Your task to perform on an android device: Add usb-c to usb-b to the cart on ebay.com Image 0: 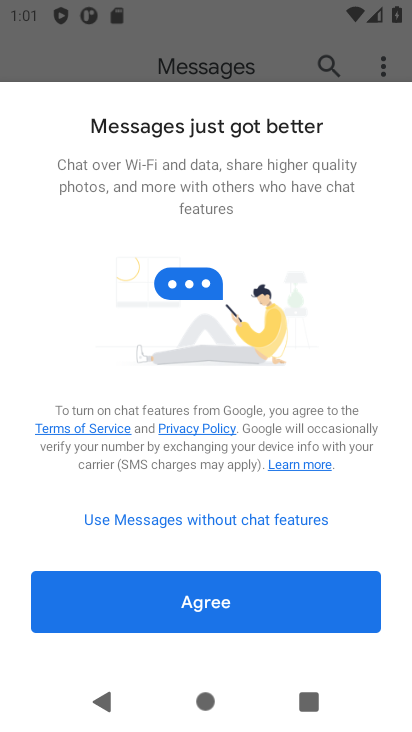
Step 0: press home button
Your task to perform on an android device: Add usb-c to usb-b to the cart on ebay.com Image 1: 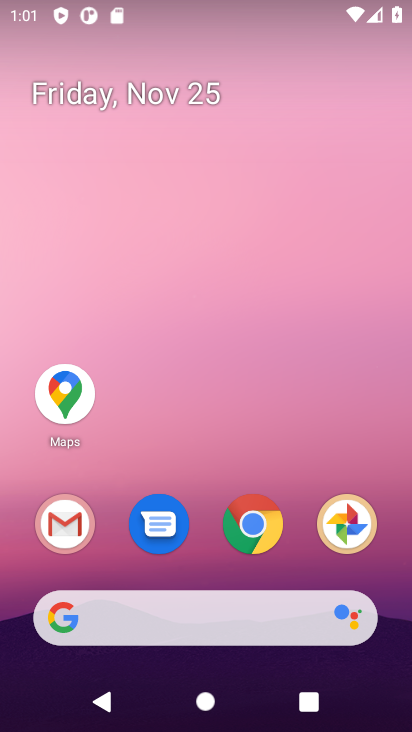
Step 1: click (249, 530)
Your task to perform on an android device: Add usb-c to usb-b to the cart on ebay.com Image 2: 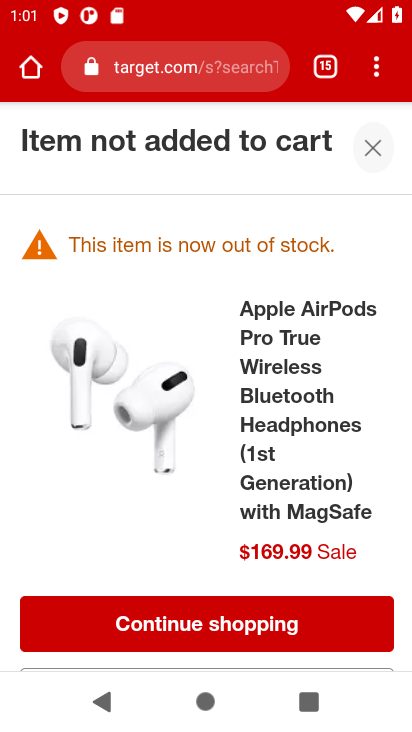
Step 2: click (141, 73)
Your task to perform on an android device: Add usb-c to usb-b to the cart on ebay.com Image 3: 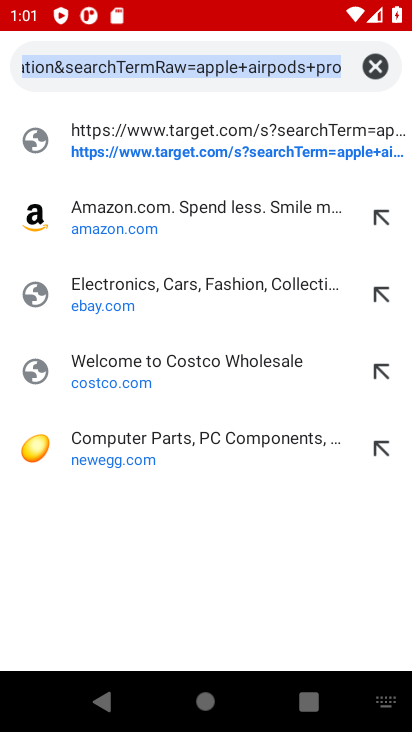
Step 3: click (94, 291)
Your task to perform on an android device: Add usb-c to usb-b to the cart on ebay.com Image 4: 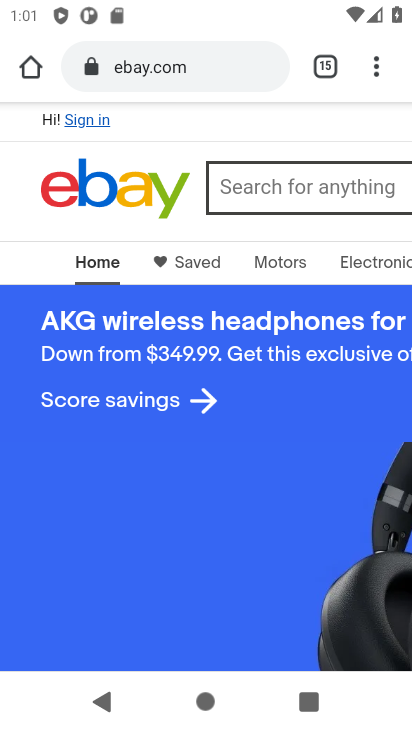
Step 4: click (268, 199)
Your task to perform on an android device: Add usb-c to usb-b to the cart on ebay.com Image 5: 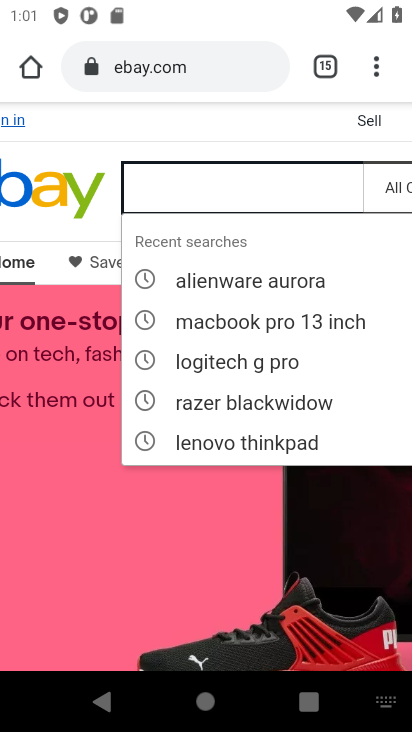
Step 5: type "usb-c to usb-b"
Your task to perform on an android device: Add usb-c to usb-b to the cart on ebay.com Image 6: 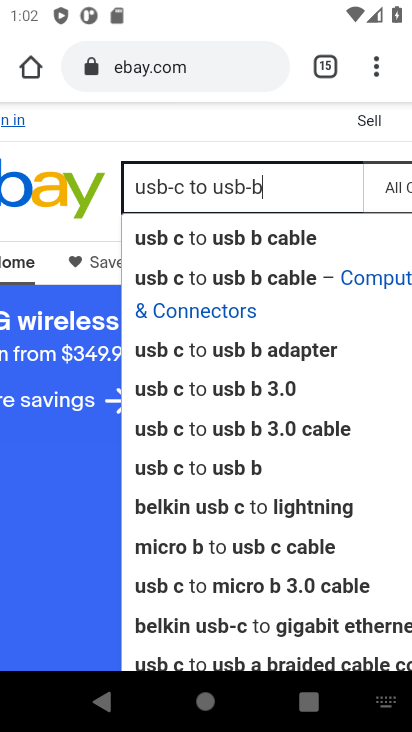
Step 6: click (223, 244)
Your task to perform on an android device: Add usb-c to usb-b to the cart on ebay.com Image 7: 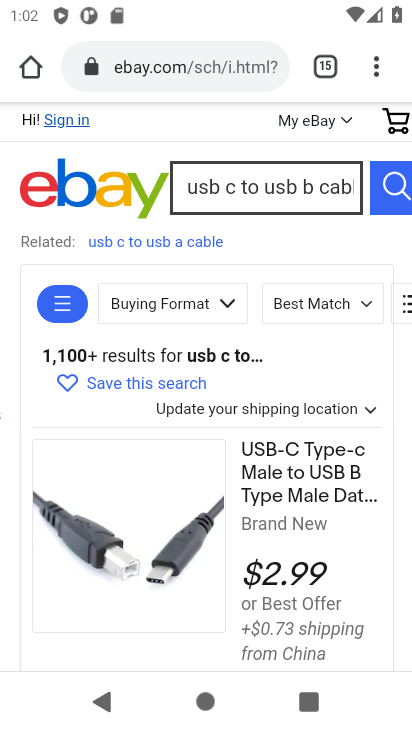
Step 7: drag from (108, 467) to (139, 269)
Your task to perform on an android device: Add usb-c to usb-b to the cart on ebay.com Image 8: 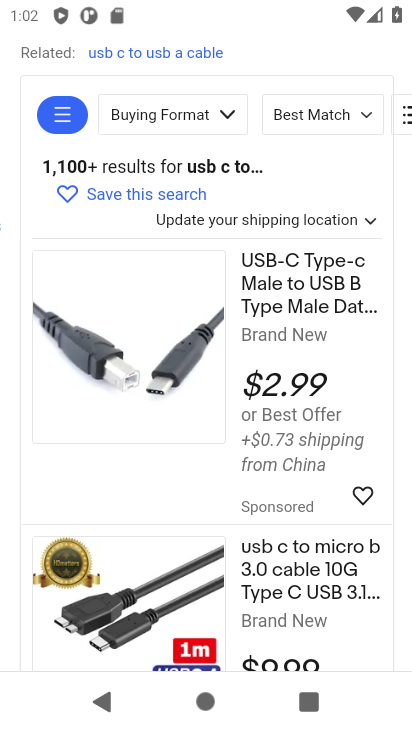
Step 8: click (128, 352)
Your task to perform on an android device: Add usb-c to usb-b to the cart on ebay.com Image 9: 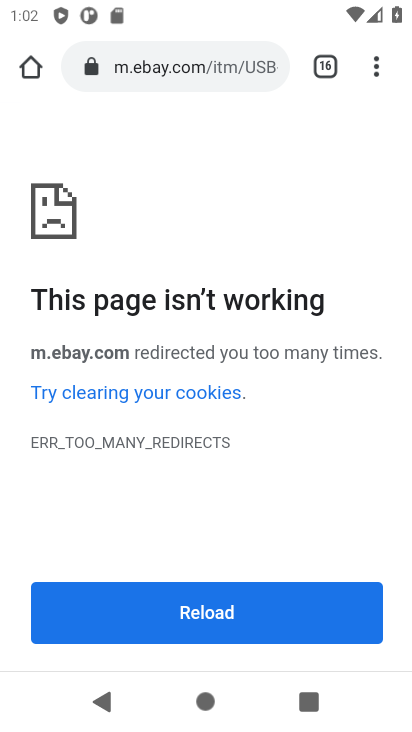
Step 9: task complete